Your task to perform on an android device: stop showing notifications on the lock screen Image 0: 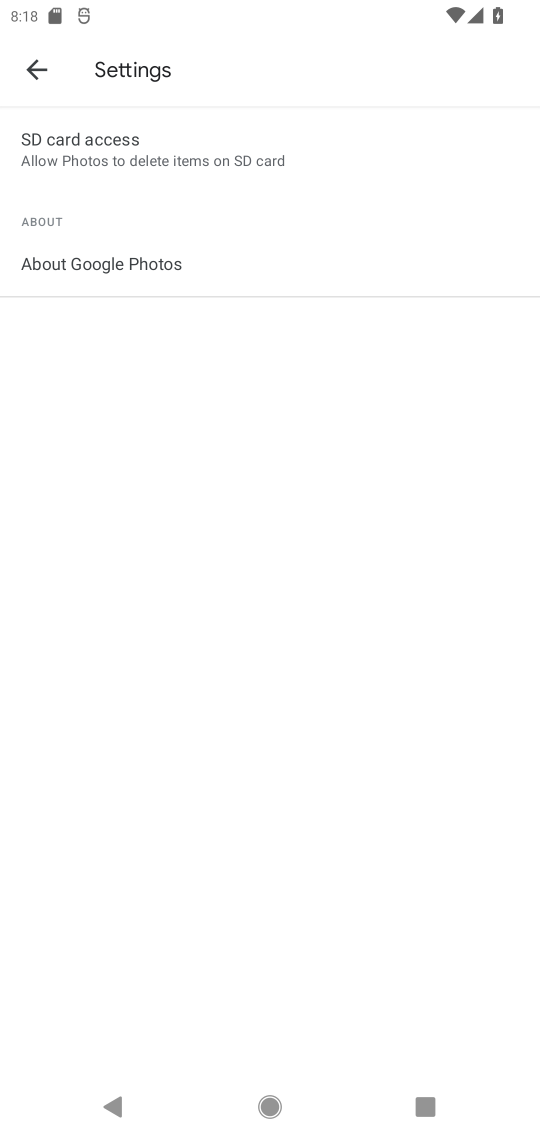
Step 0: press home button
Your task to perform on an android device: stop showing notifications on the lock screen Image 1: 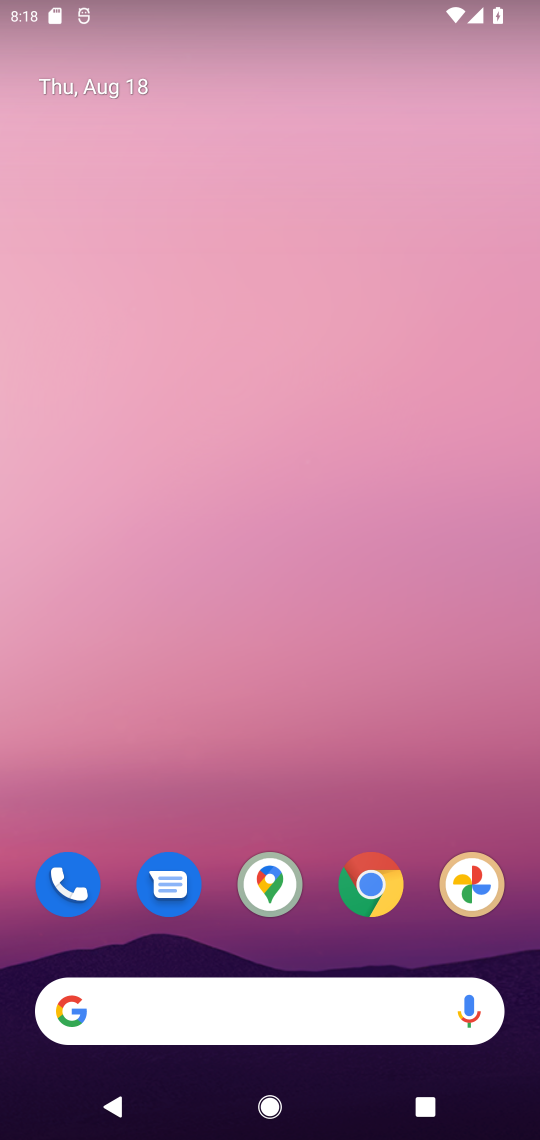
Step 1: drag from (226, 937) to (144, 59)
Your task to perform on an android device: stop showing notifications on the lock screen Image 2: 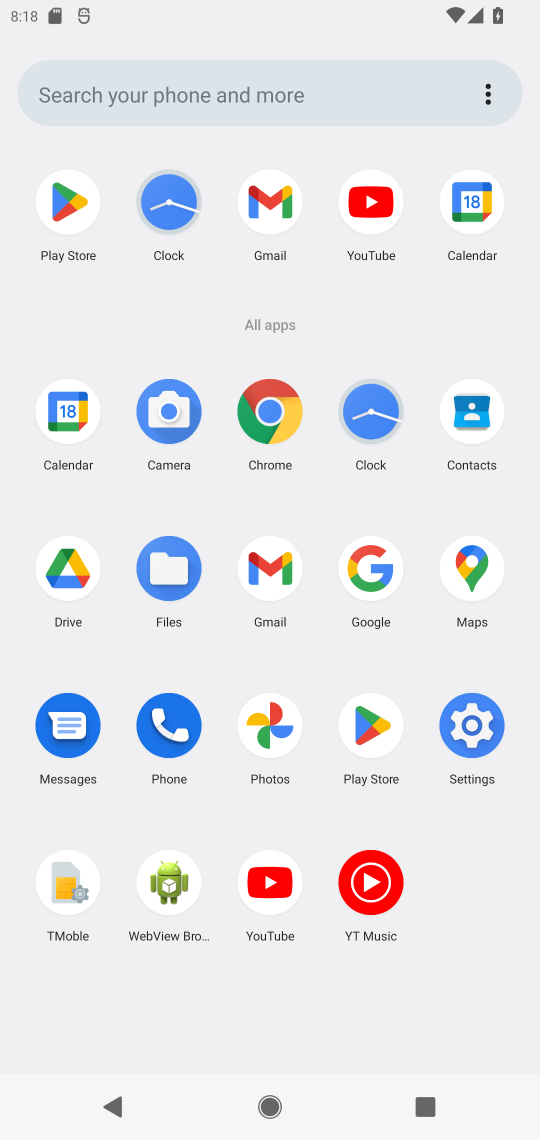
Step 2: click (468, 738)
Your task to perform on an android device: stop showing notifications on the lock screen Image 3: 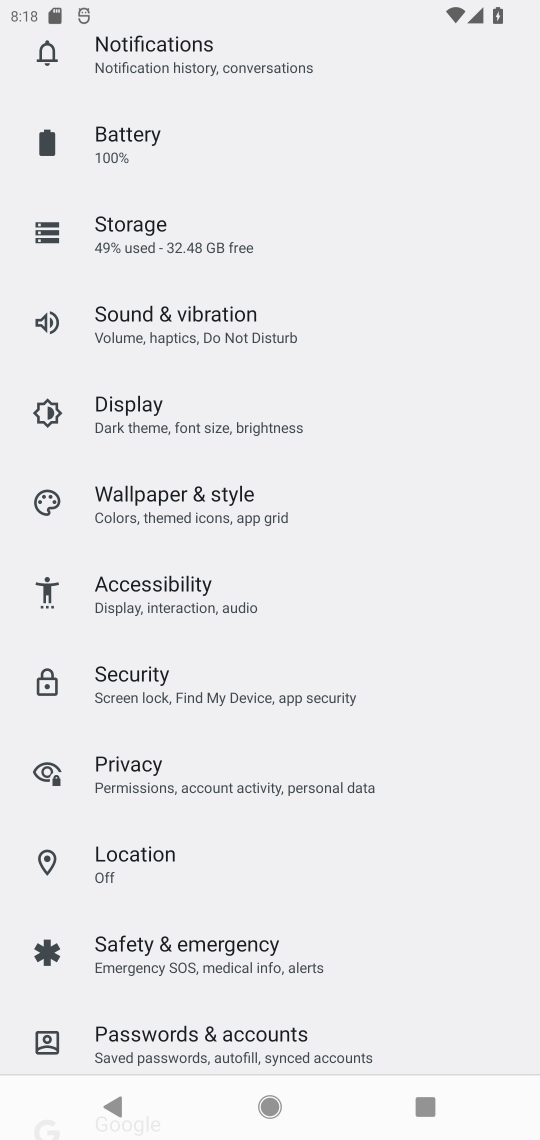
Step 3: click (146, 58)
Your task to perform on an android device: stop showing notifications on the lock screen Image 4: 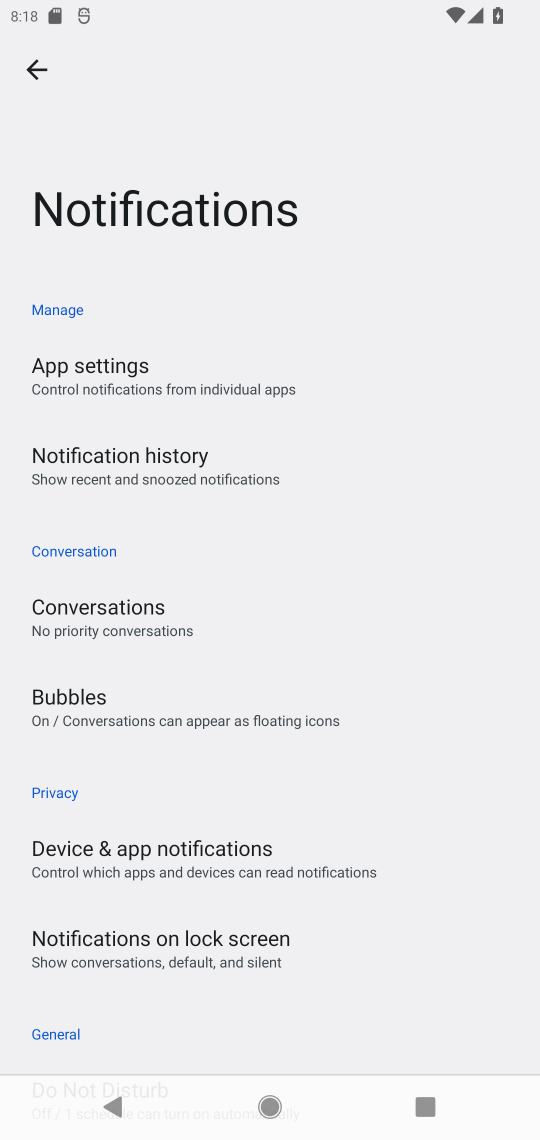
Step 4: click (168, 489)
Your task to perform on an android device: stop showing notifications on the lock screen Image 5: 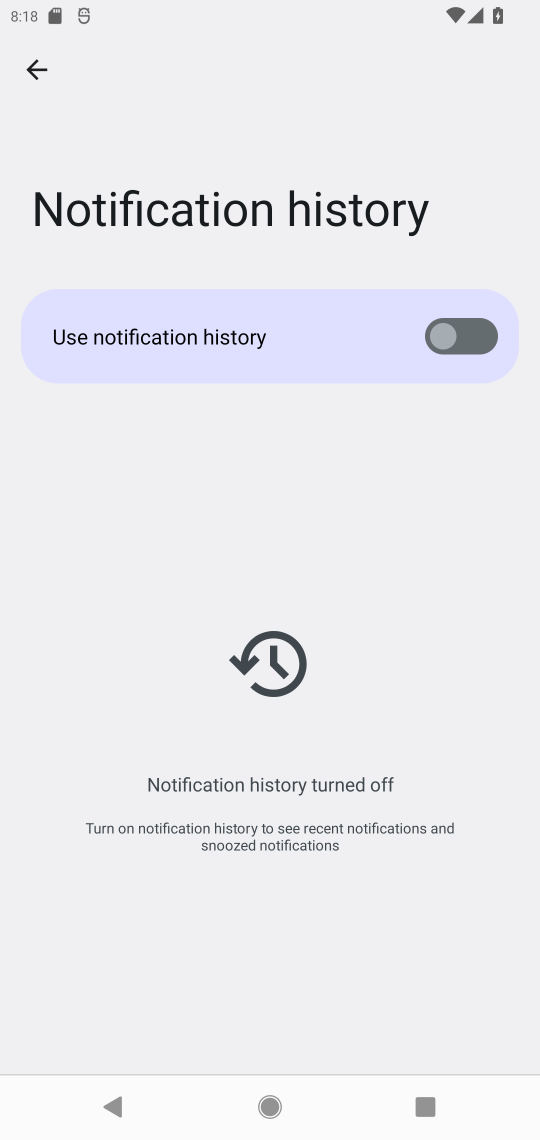
Step 5: click (61, 96)
Your task to perform on an android device: stop showing notifications on the lock screen Image 6: 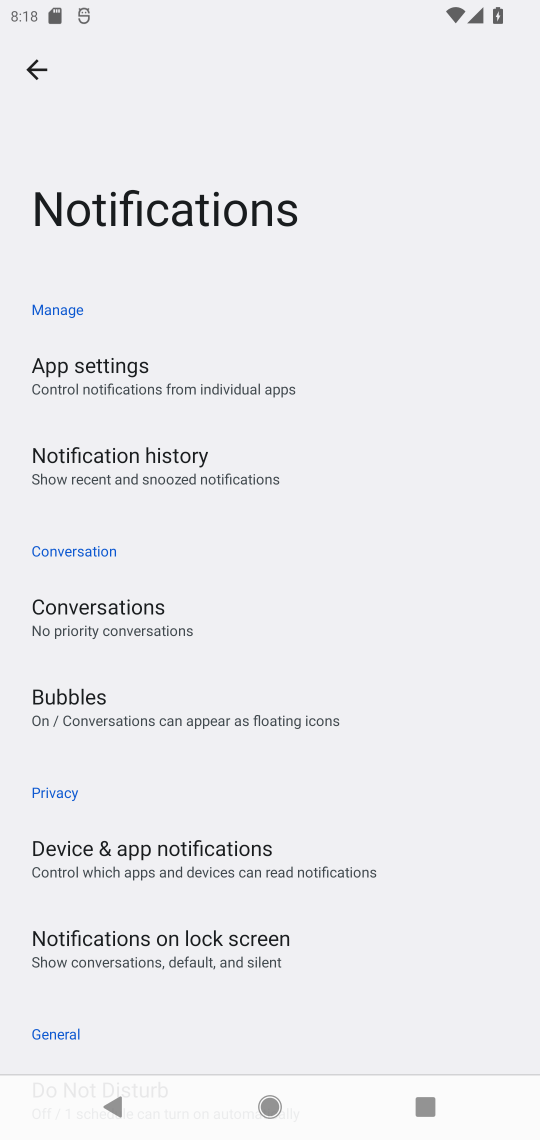
Step 6: click (215, 968)
Your task to perform on an android device: stop showing notifications on the lock screen Image 7: 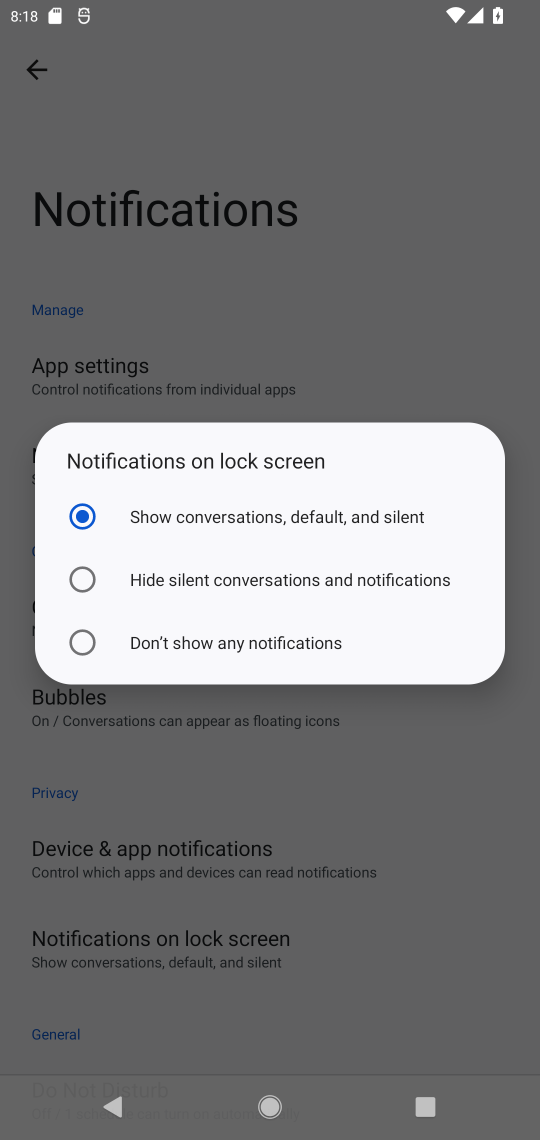
Step 7: click (88, 646)
Your task to perform on an android device: stop showing notifications on the lock screen Image 8: 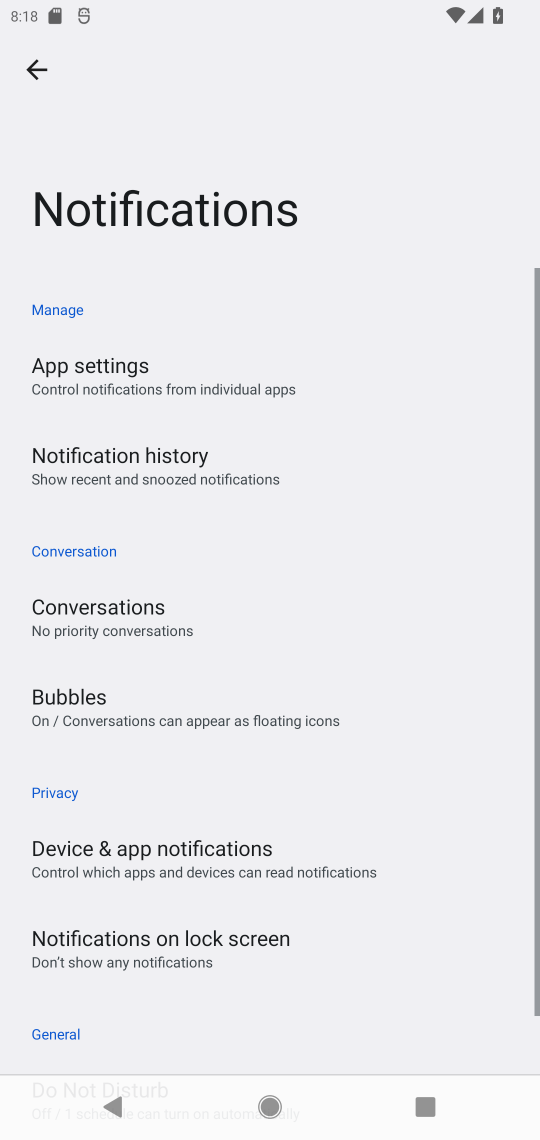
Step 8: task complete